Your task to perform on an android device: toggle sleep mode Image 0: 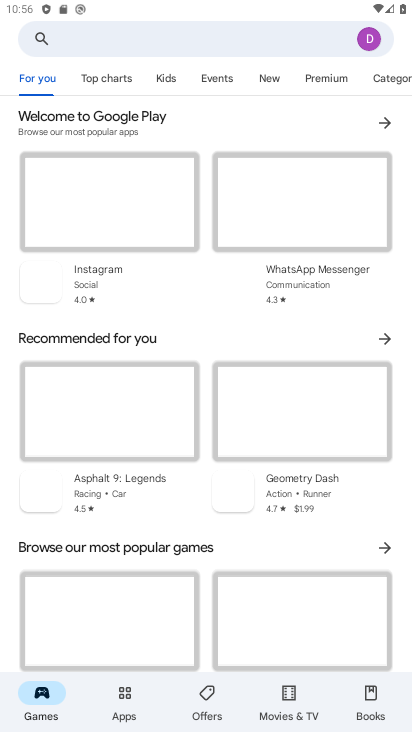
Step 0: press home button
Your task to perform on an android device: toggle sleep mode Image 1: 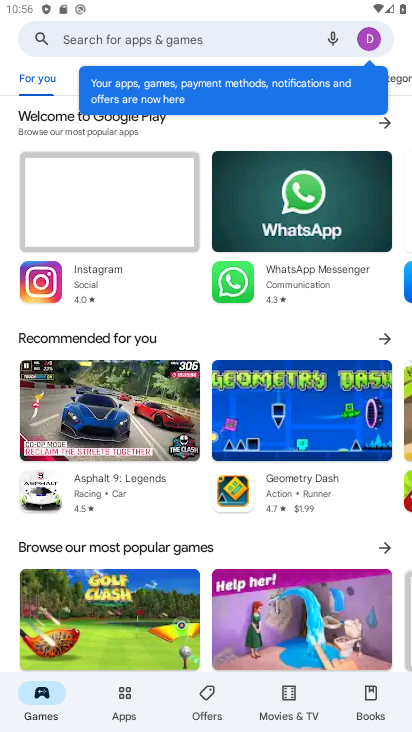
Step 1: drag from (389, 642) to (148, 41)
Your task to perform on an android device: toggle sleep mode Image 2: 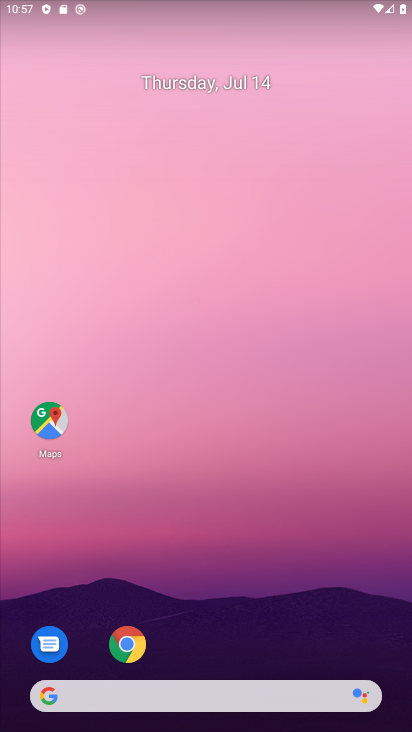
Step 2: drag from (336, 613) to (208, 62)
Your task to perform on an android device: toggle sleep mode Image 3: 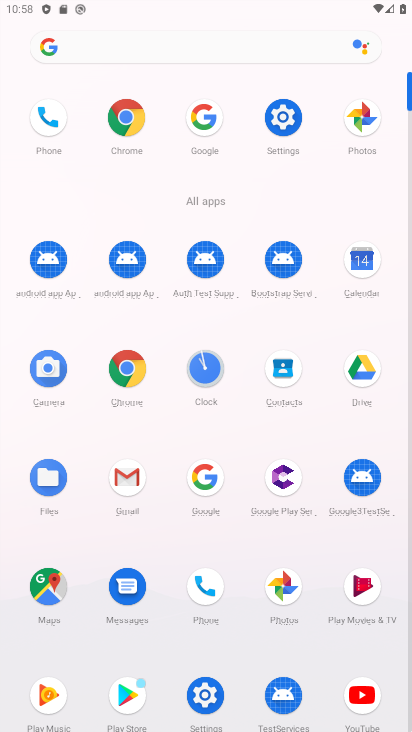
Step 3: click (209, 688)
Your task to perform on an android device: toggle sleep mode Image 4: 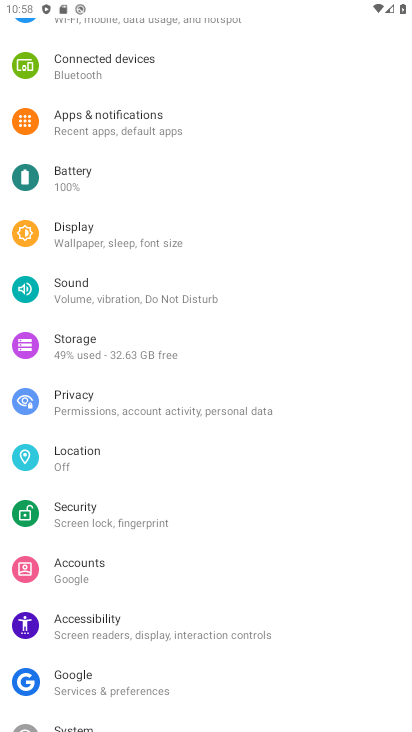
Step 4: task complete